Your task to perform on an android device: Go to Google Image 0: 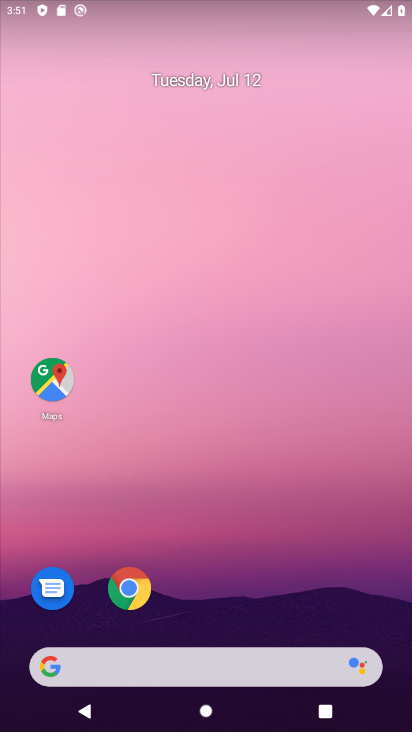
Step 0: drag from (240, 595) to (204, 97)
Your task to perform on an android device: Go to Google Image 1: 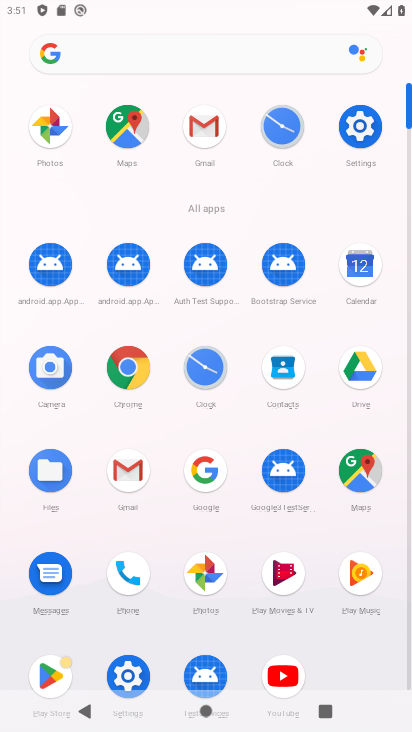
Step 1: click (208, 472)
Your task to perform on an android device: Go to Google Image 2: 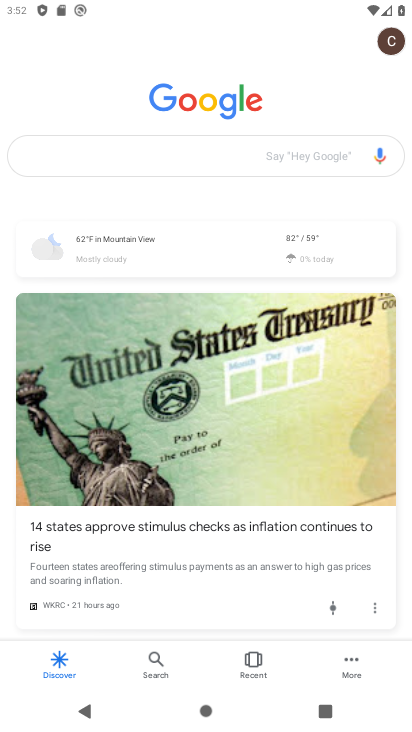
Step 2: task complete